Your task to perform on an android device: Go to Amazon Image 0: 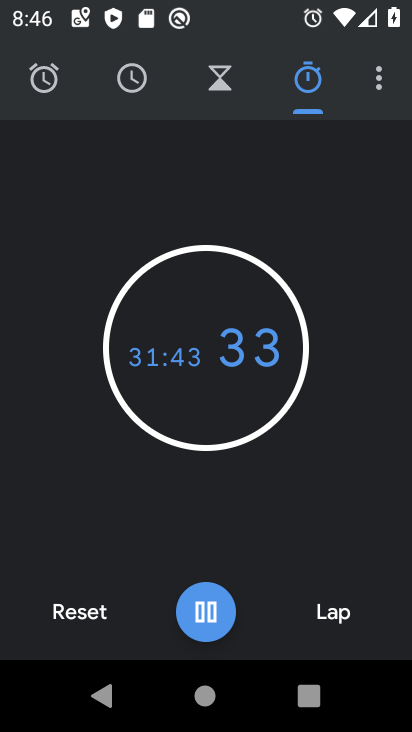
Step 0: press home button
Your task to perform on an android device: Go to Amazon Image 1: 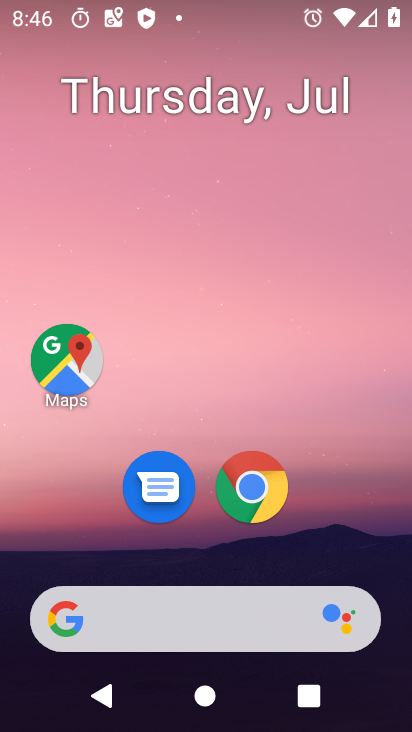
Step 1: drag from (238, 655) to (247, 99)
Your task to perform on an android device: Go to Amazon Image 2: 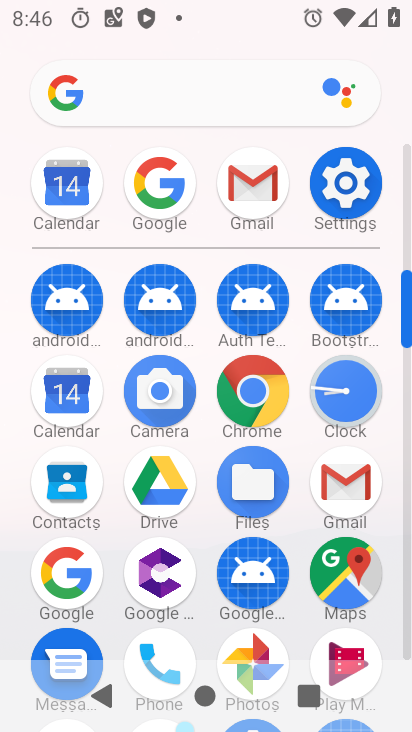
Step 2: click (253, 400)
Your task to perform on an android device: Go to Amazon Image 3: 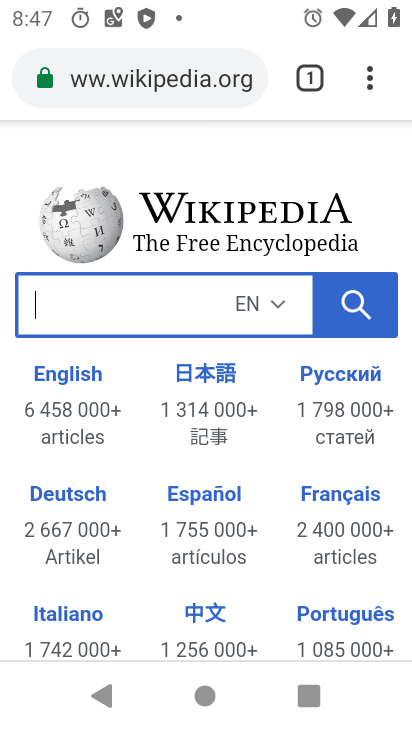
Step 3: click (218, 79)
Your task to perform on an android device: Go to Amazon Image 4: 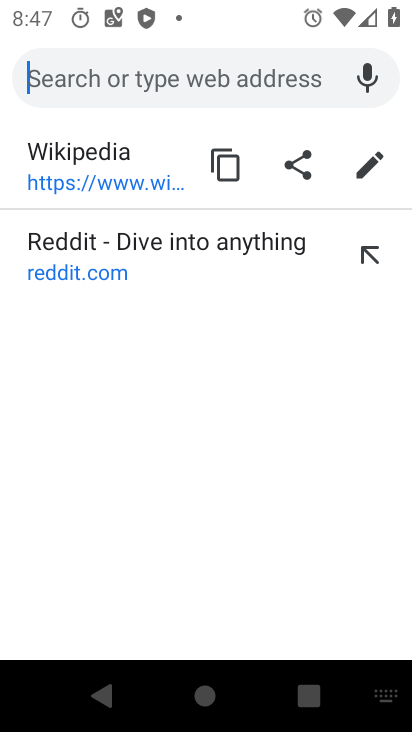
Step 4: type "amazon"
Your task to perform on an android device: Go to Amazon Image 5: 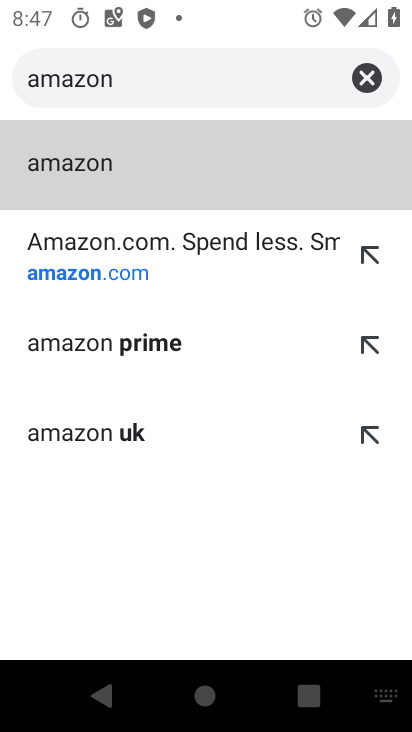
Step 5: click (175, 252)
Your task to perform on an android device: Go to Amazon Image 6: 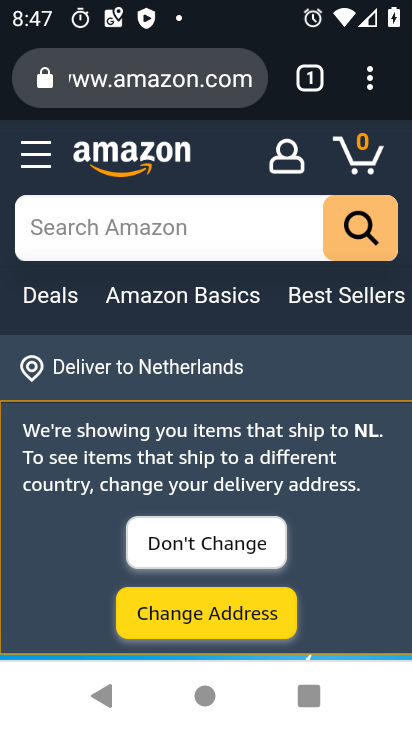
Step 6: task complete